Your task to perform on an android device: refresh tabs in the chrome app Image 0: 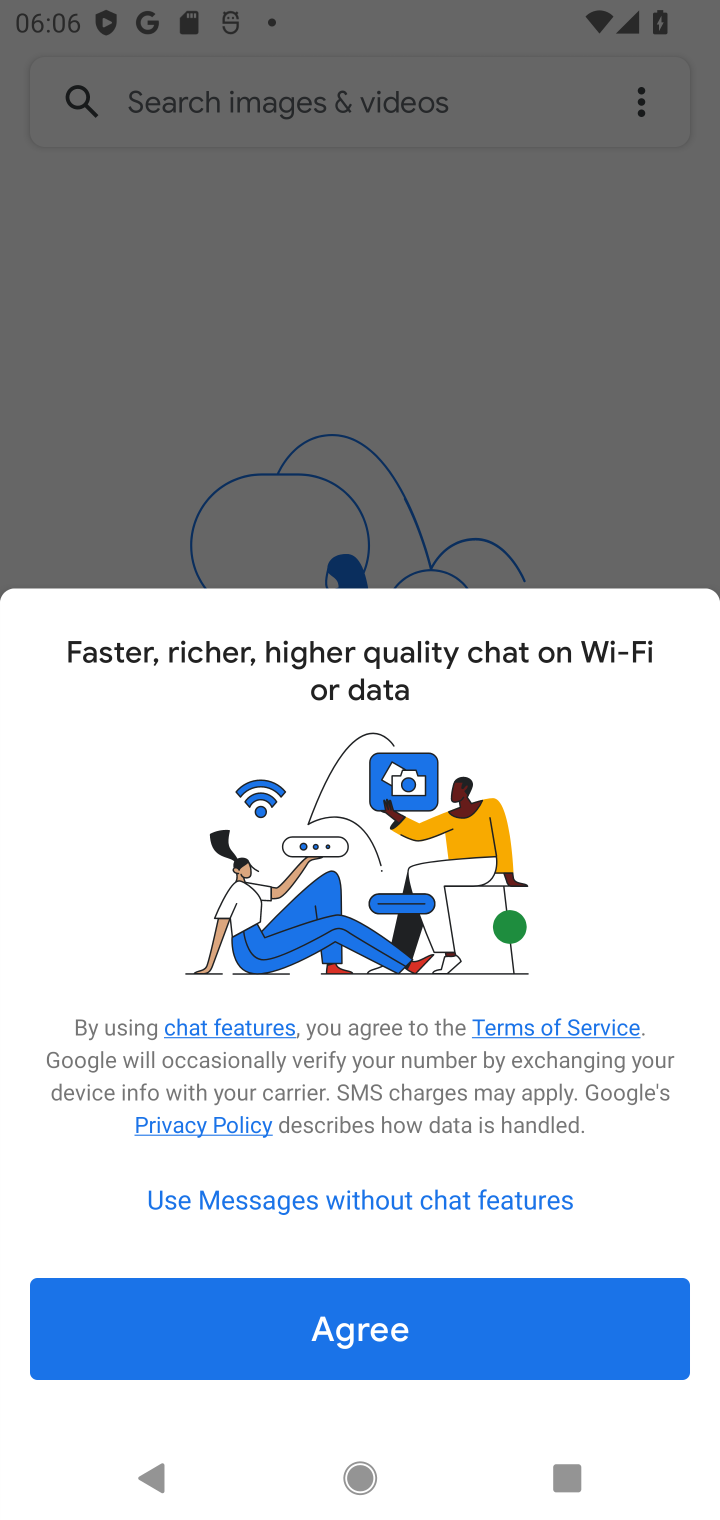
Step 0: press home button
Your task to perform on an android device: refresh tabs in the chrome app Image 1: 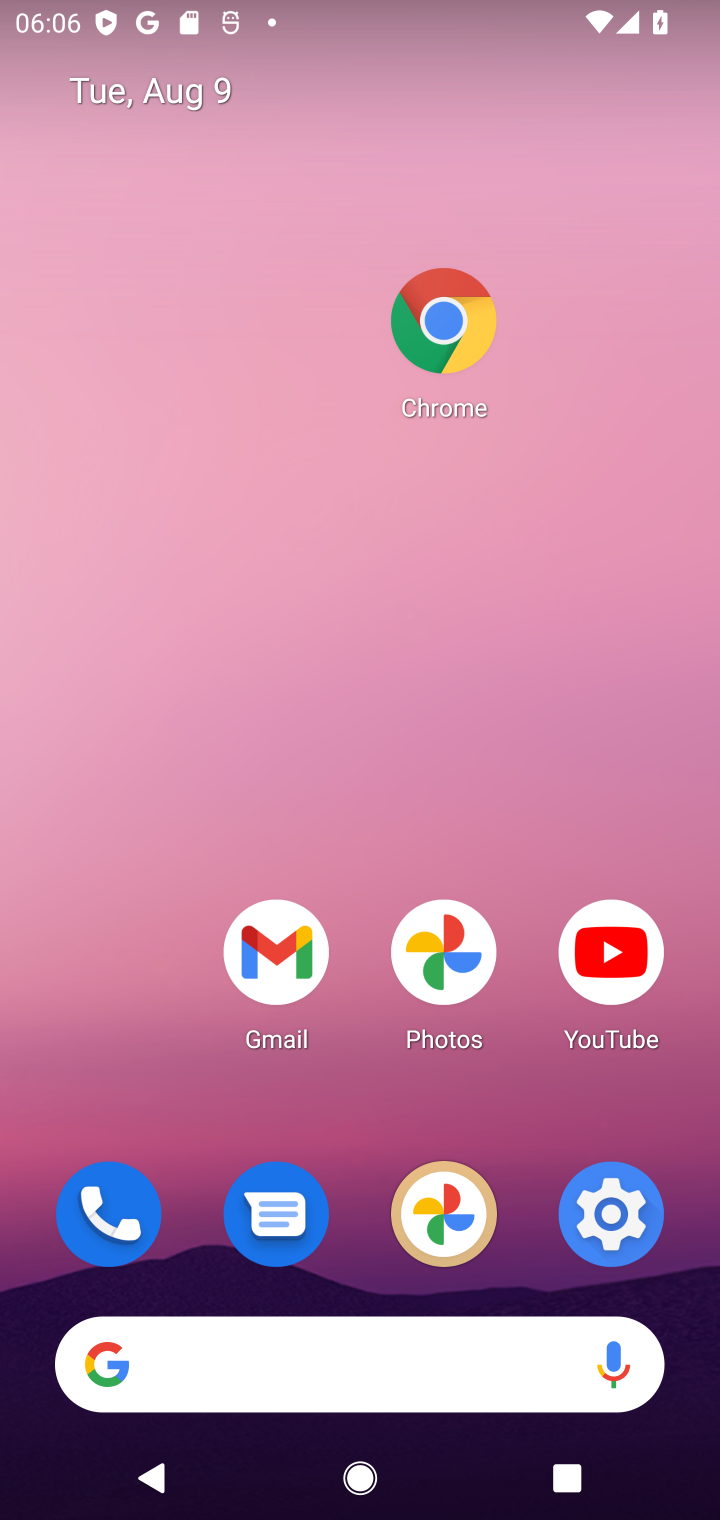
Step 1: click (468, 352)
Your task to perform on an android device: refresh tabs in the chrome app Image 2: 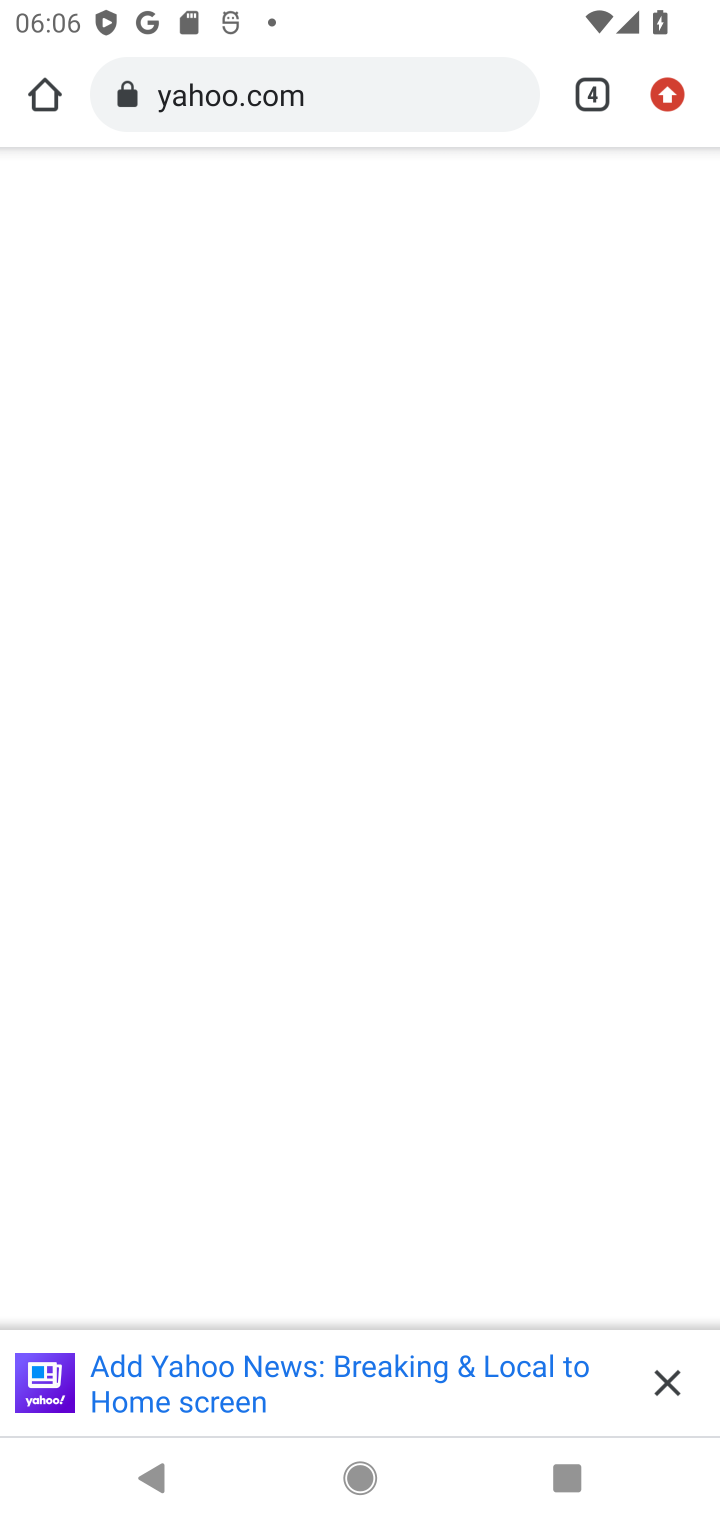
Step 2: click (665, 90)
Your task to perform on an android device: refresh tabs in the chrome app Image 3: 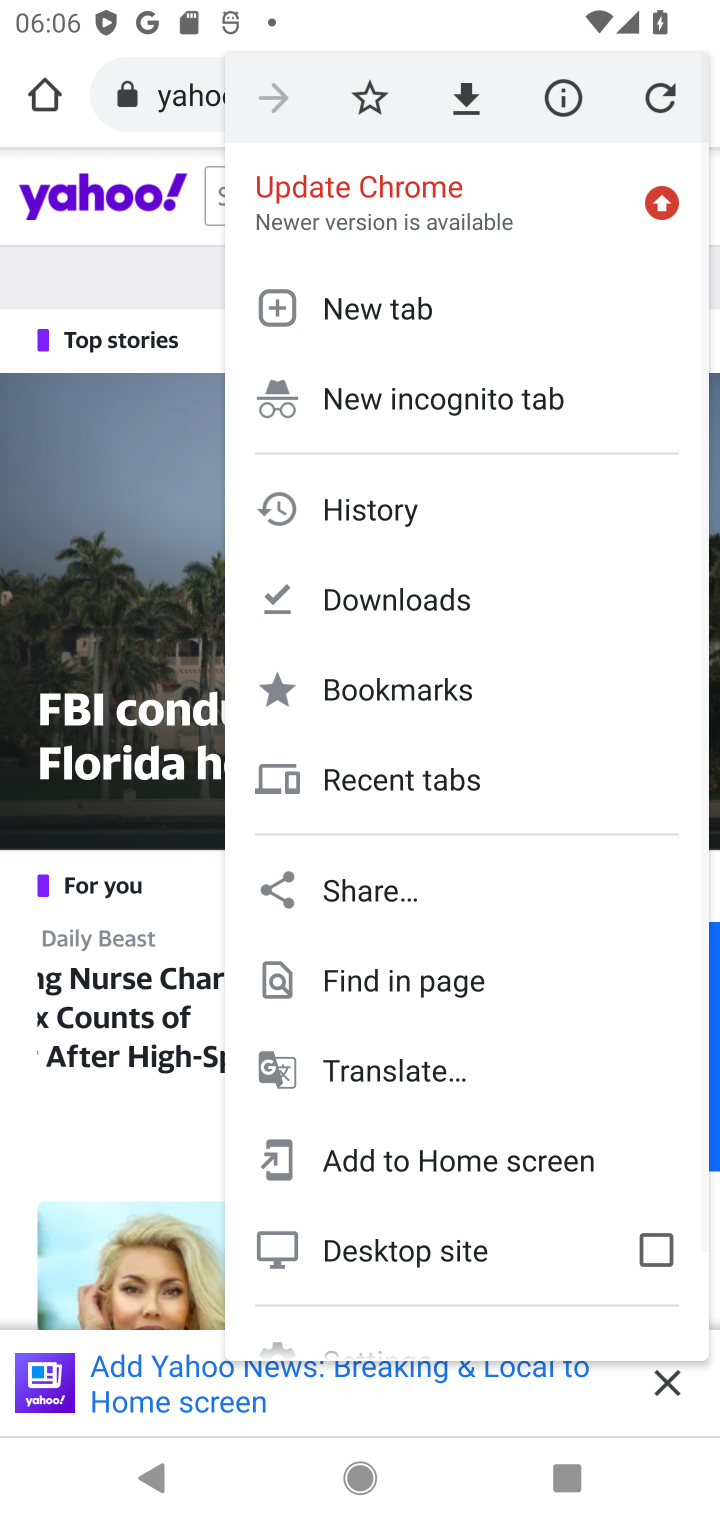
Step 3: click (663, 92)
Your task to perform on an android device: refresh tabs in the chrome app Image 4: 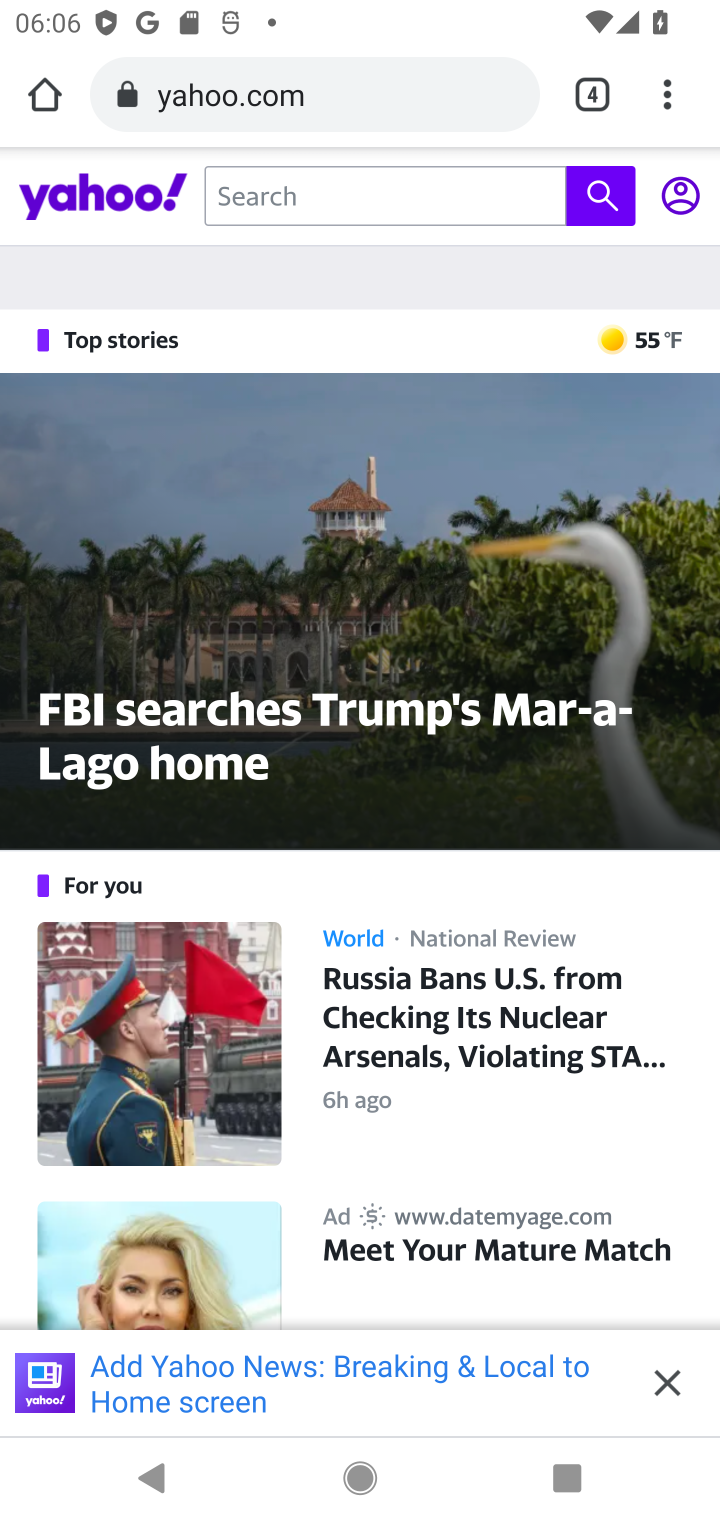
Step 4: task complete